Your task to perform on an android device: toggle show notifications on the lock screen Image 0: 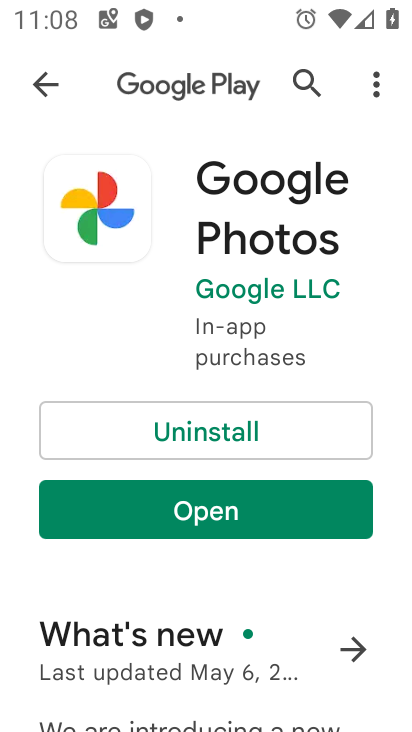
Step 0: press home button
Your task to perform on an android device: toggle show notifications on the lock screen Image 1: 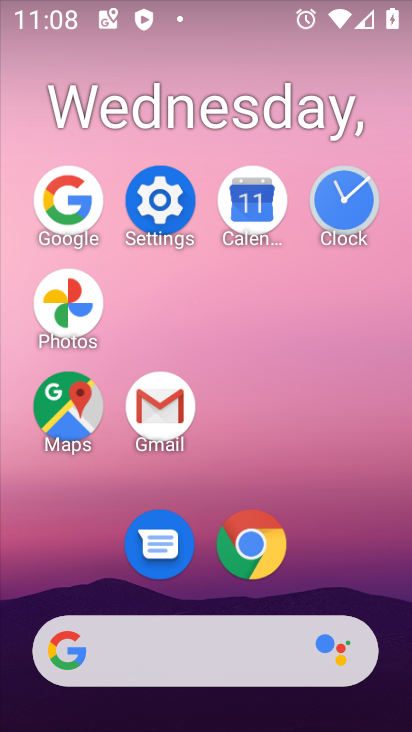
Step 1: click (159, 211)
Your task to perform on an android device: toggle show notifications on the lock screen Image 2: 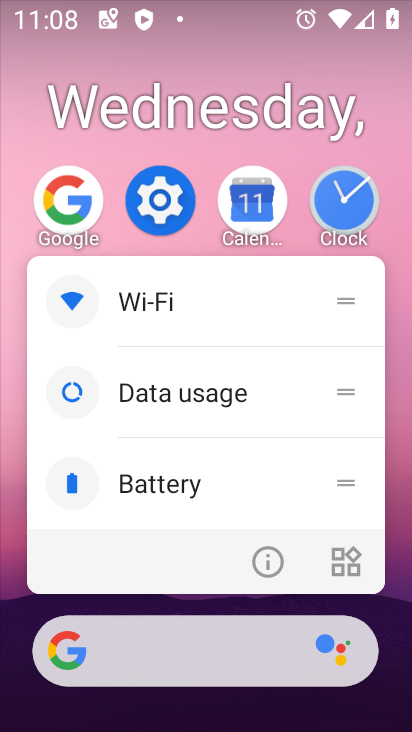
Step 2: click (167, 188)
Your task to perform on an android device: toggle show notifications on the lock screen Image 3: 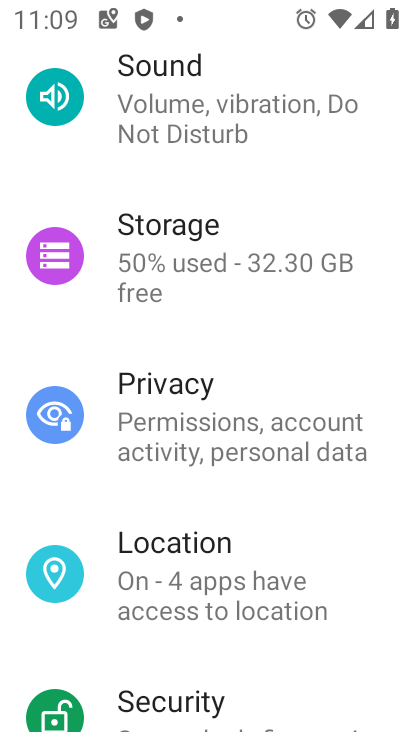
Step 3: drag from (292, 167) to (311, 699)
Your task to perform on an android device: toggle show notifications on the lock screen Image 4: 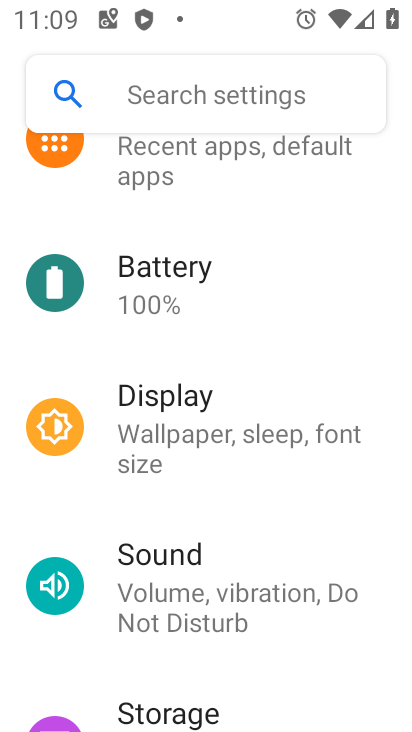
Step 4: drag from (269, 296) to (272, 642)
Your task to perform on an android device: toggle show notifications on the lock screen Image 5: 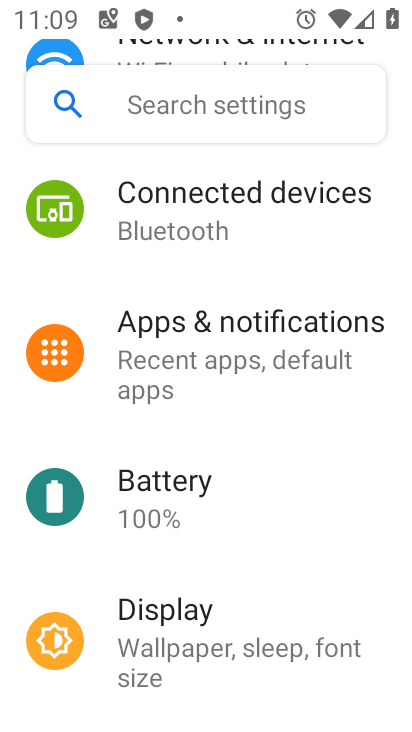
Step 5: click (214, 342)
Your task to perform on an android device: toggle show notifications on the lock screen Image 6: 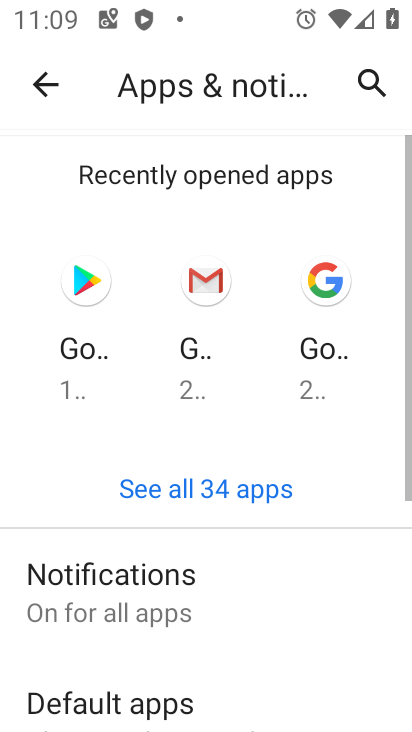
Step 6: click (263, 603)
Your task to perform on an android device: toggle show notifications on the lock screen Image 7: 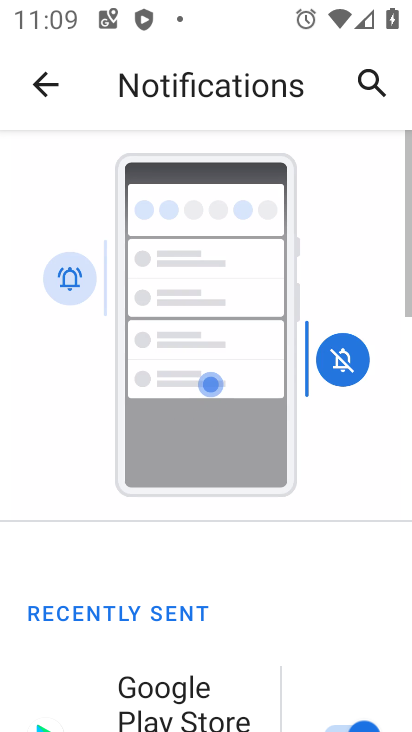
Step 7: drag from (272, 583) to (264, 109)
Your task to perform on an android device: toggle show notifications on the lock screen Image 8: 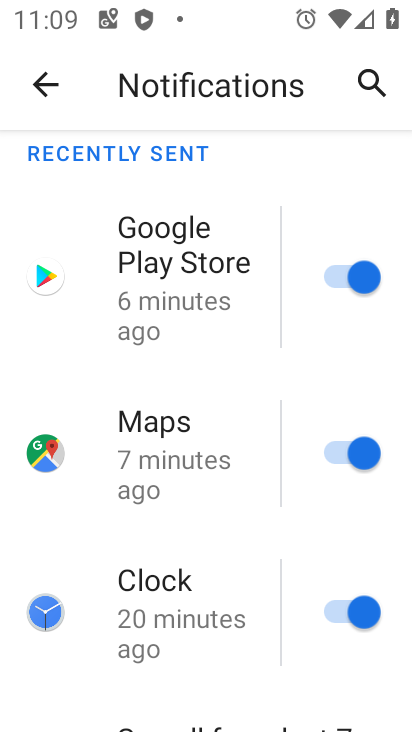
Step 8: drag from (221, 674) to (257, 153)
Your task to perform on an android device: toggle show notifications on the lock screen Image 9: 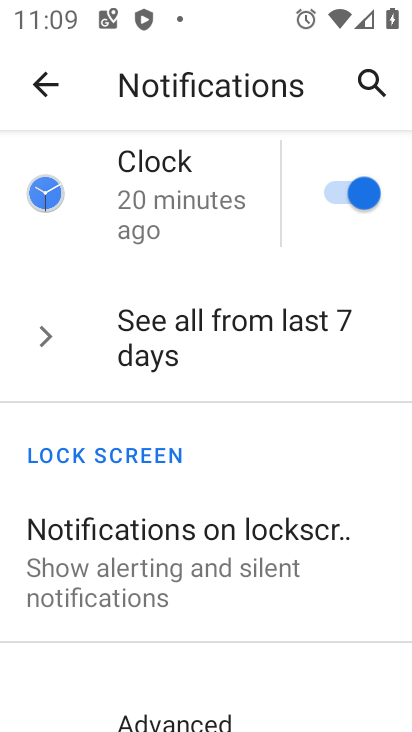
Step 9: drag from (253, 569) to (247, 242)
Your task to perform on an android device: toggle show notifications on the lock screen Image 10: 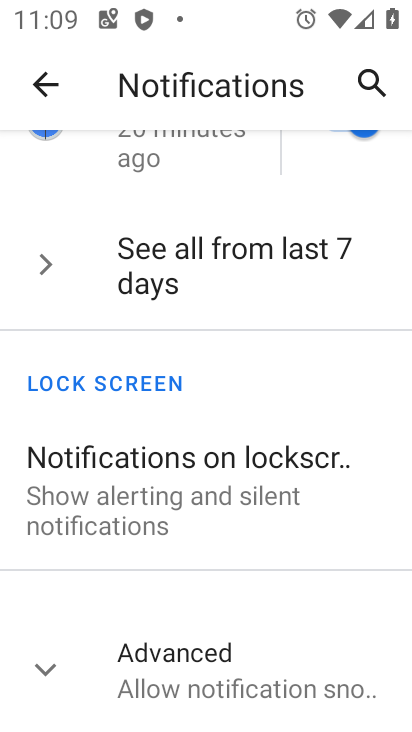
Step 10: click (195, 503)
Your task to perform on an android device: toggle show notifications on the lock screen Image 11: 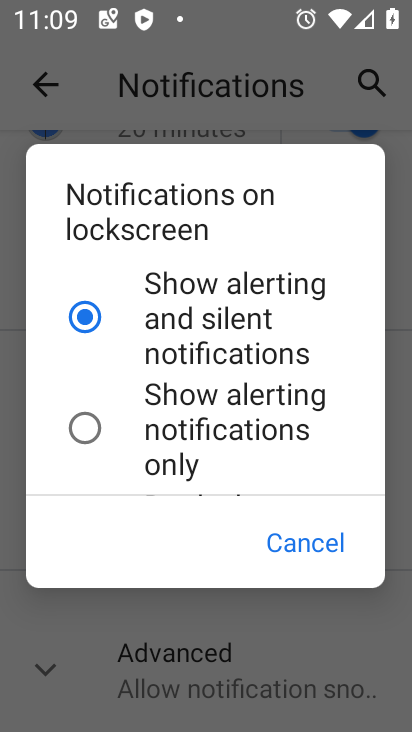
Step 11: click (166, 415)
Your task to perform on an android device: toggle show notifications on the lock screen Image 12: 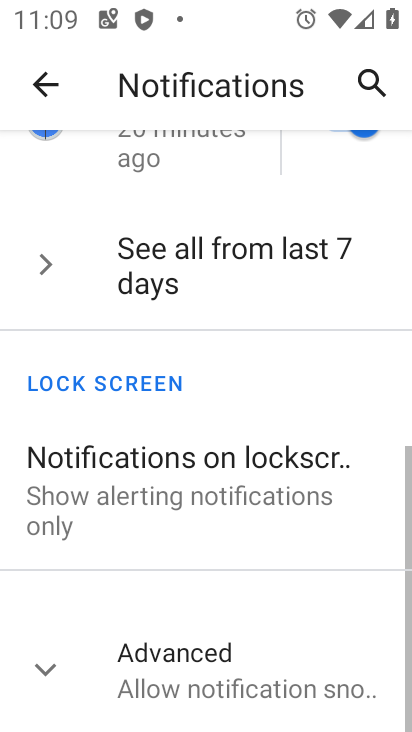
Step 12: task complete